Your task to perform on an android device: clear all cookies in the chrome app Image 0: 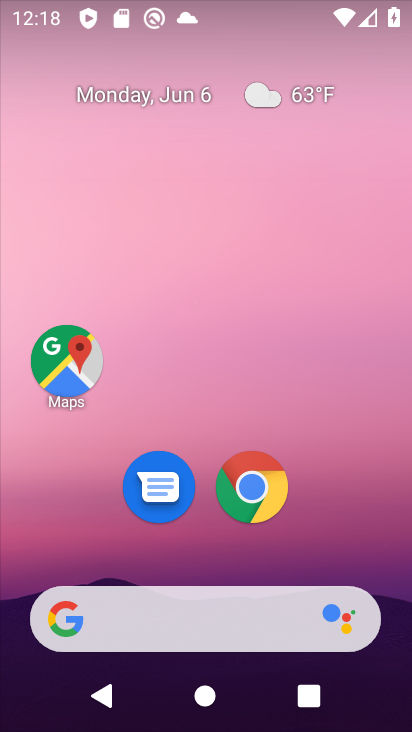
Step 0: click (254, 485)
Your task to perform on an android device: clear all cookies in the chrome app Image 1: 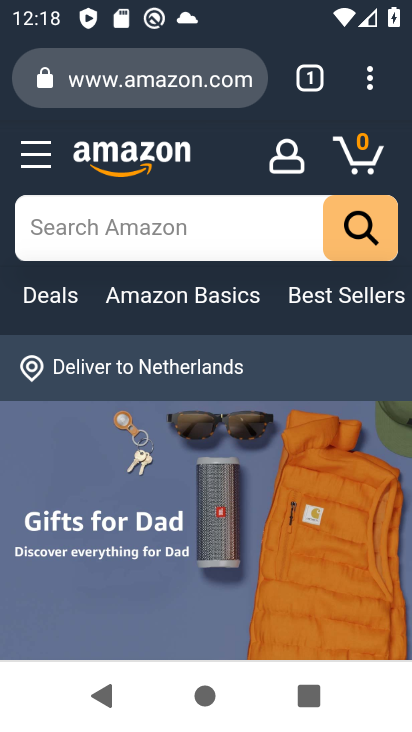
Step 1: click (369, 84)
Your task to perform on an android device: clear all cookies in the chrome app Image 2: 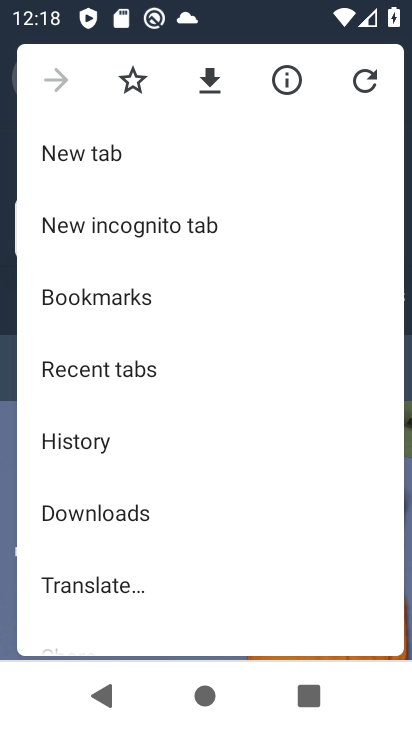
Step 2: click (88, 442)
Your task to perform on an android device: clear all cookies in the chrome app Image 3: 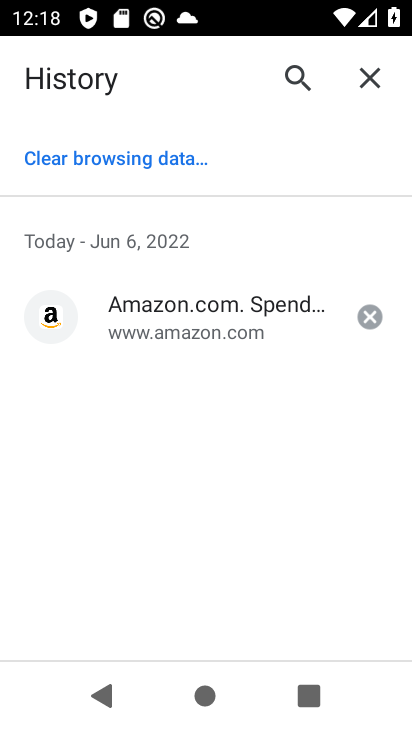
Step 3: click (107, 155)
Your task to perform on an android device: clear all cookies in the chrome app Image 4: 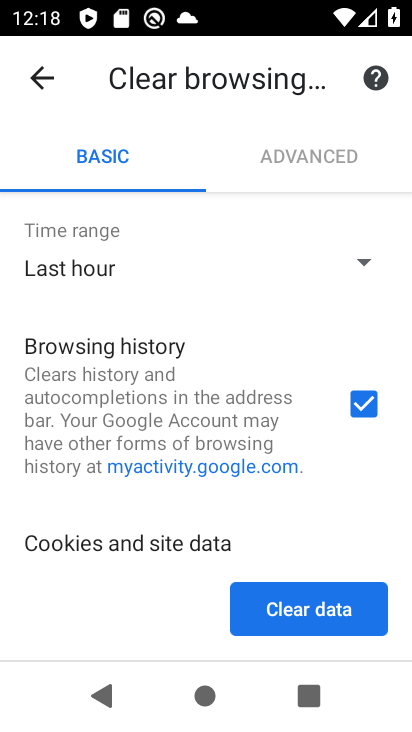
Step 4: click (367, 406)
Your task to perform on an android device: clear all cookies in the chrome app Image 5: 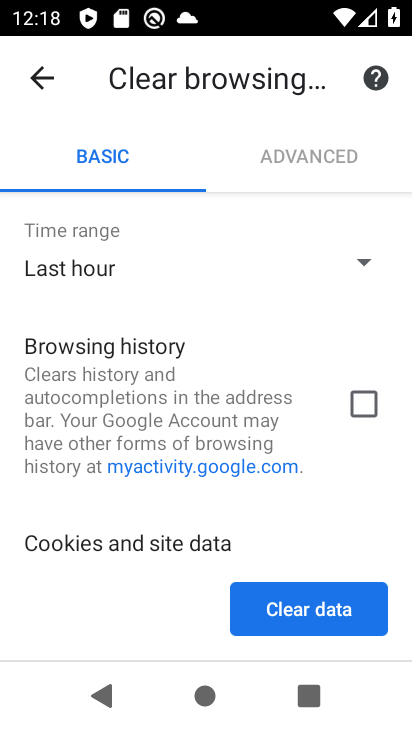
Step 5: drag from (321, 492) to (300, 157)
Your task to perform on an android device: clear all cookies in the chrome app Image 6: 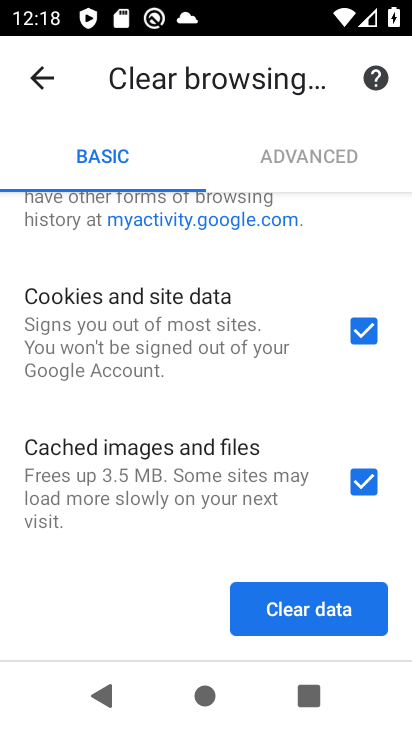
Step 6: click (358, 480)
Your task to perform on an android device: clear all cookies in the chrome app Image 7: 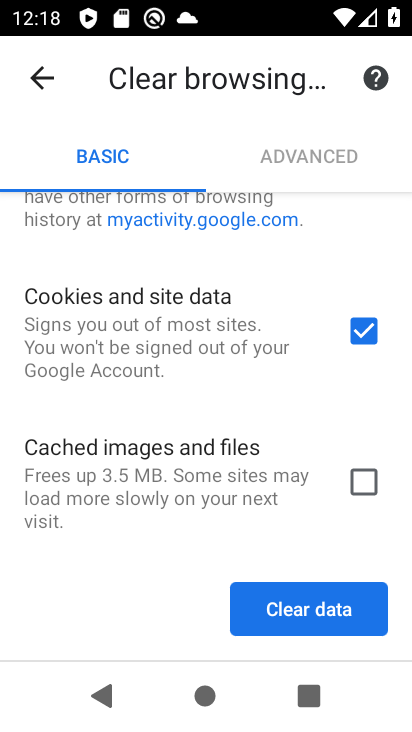
Step 7: click (311, 597)
Your task to perform on an android device: clear all cookies in the chrome app Image 8: 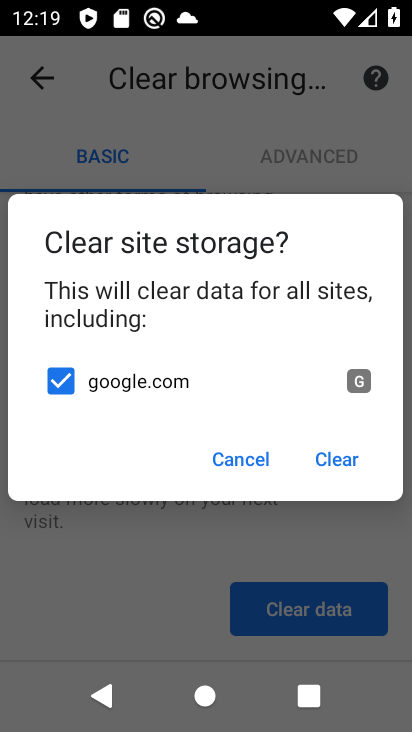
Step 8: click (331, 460)
Your task to perform on an android device: clear all cookies in the chrome app Image 9: 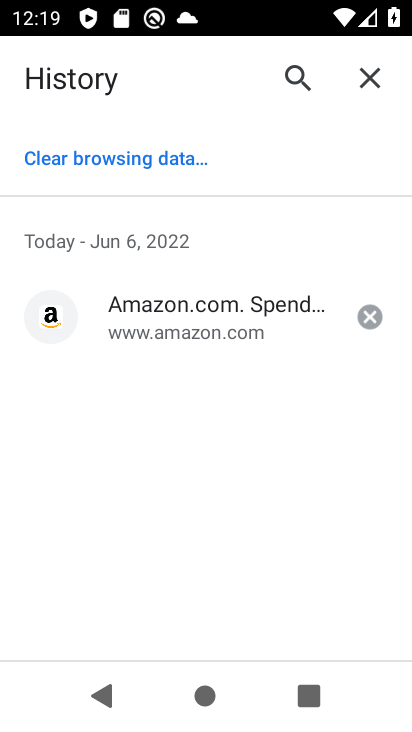
Step 9: task complete